Your task to perform on an android device: allow cookies in the chrome app Image 0: 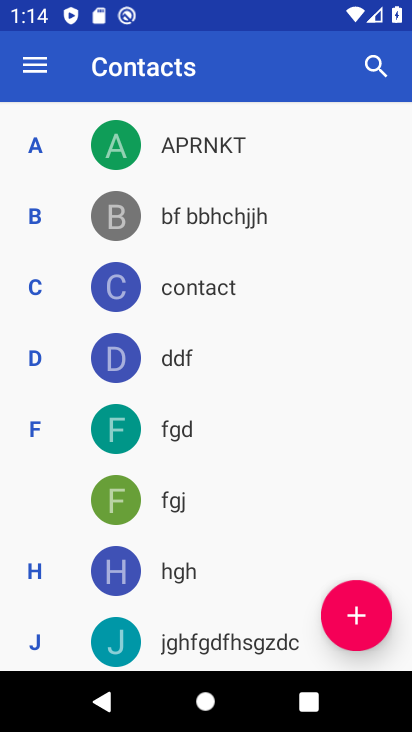
Step 0: press home button
Your task to perform on an android device: allow cookies in the chrome app Image 1: 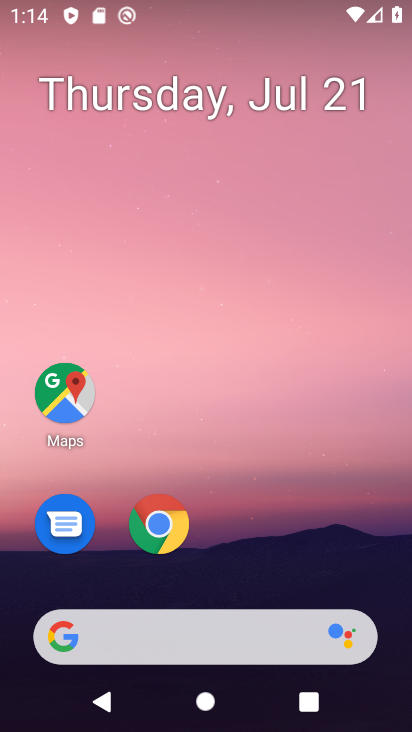
Step 1: click (171, 520)
Your task to perform on an android device: allow cookies in the chrome app Image 2: 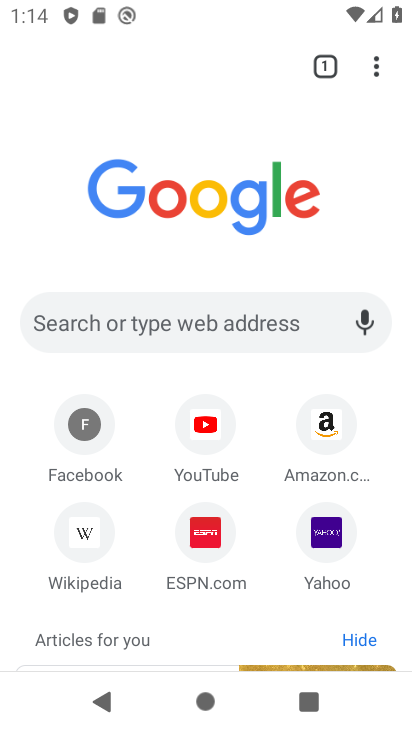
Step 2: click (372, 72)
Your task to perform on an android device: allow cookies in the chrome app Image 3: 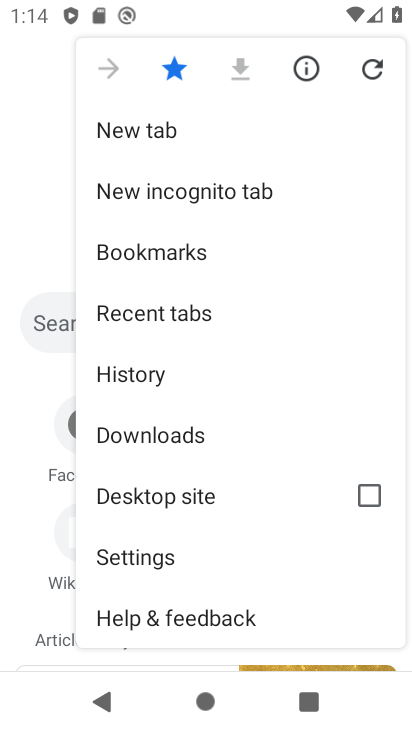
Step 3: drag from (238, 550) to (263, 321)
Your task to perform on an android device: allow cookies in the chrome app Image 4: 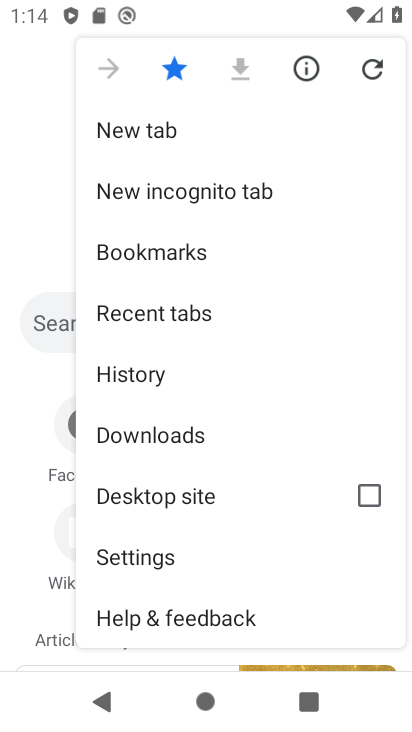
Step 4: click (165, 552)
Your task to perform on an android device: allow cookies in the chrome app Image 5: 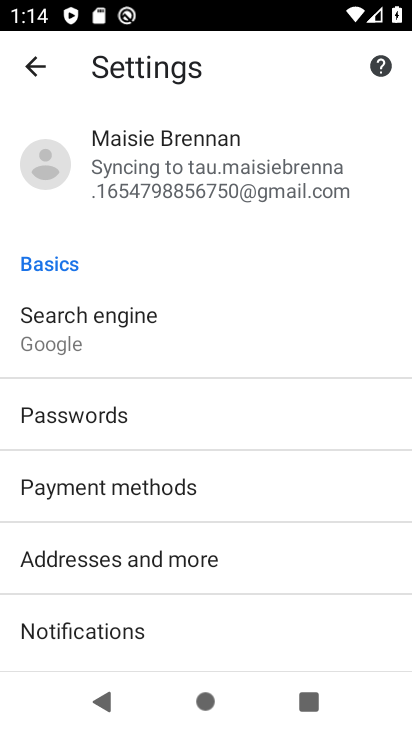
Step 5: drag from (257, 564) to (333, 189)
Your task to perform on an android device: allow cookies in the chrome app Image 6: 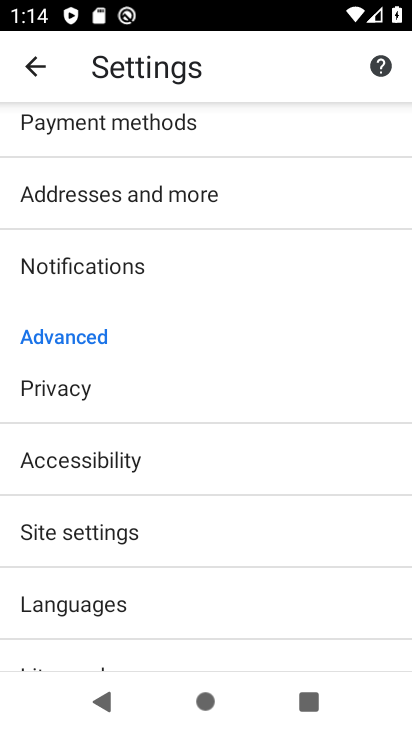
Step 6: click (129, 521)
Your task to perform on an android device: allow cookies in the chrome app Image 7: 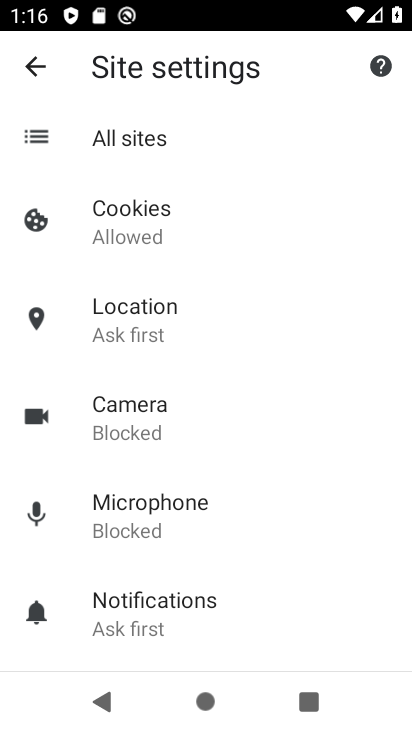
Step 7: task complete